Your task to perform on an android device: Open accessibility settings Image 0: 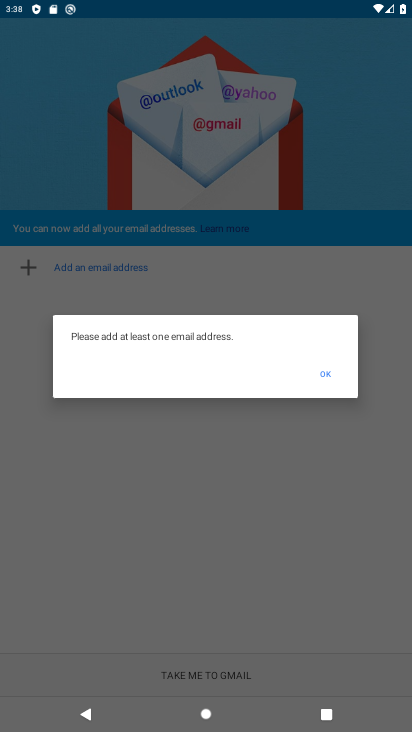
Step 0: press home button
Your task to perform on an android device: Open accessibility settings Image 1: 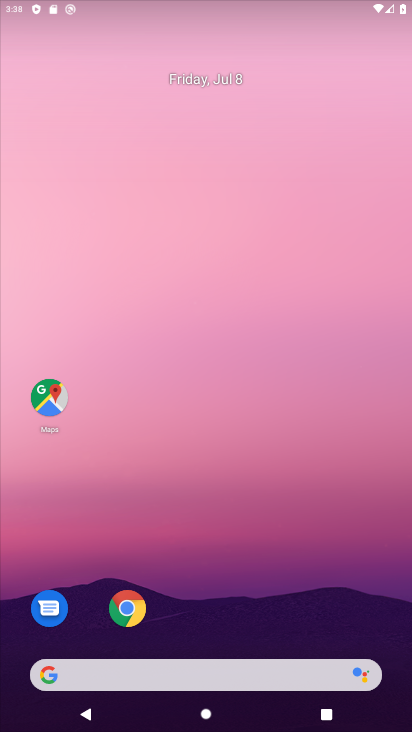
Step 1: drag from (307, 626) to (193, 718)
Your task to perform on an android device: Open accessibility settings Image 2: 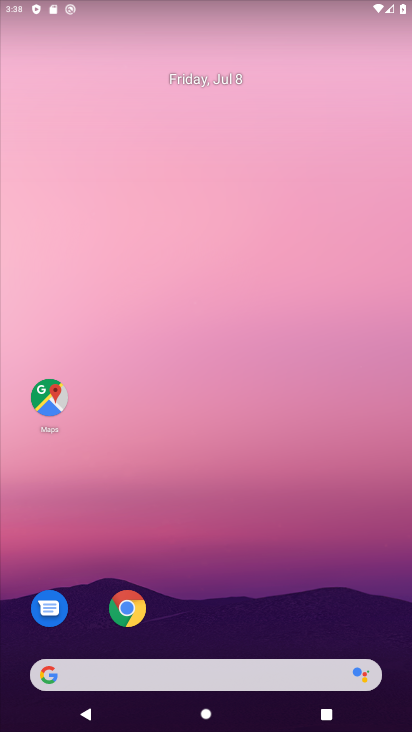
Step 2: drag from (273, 601) to (319, 163)
Your task to perform on an android device: Open accessibility settings Image 3: 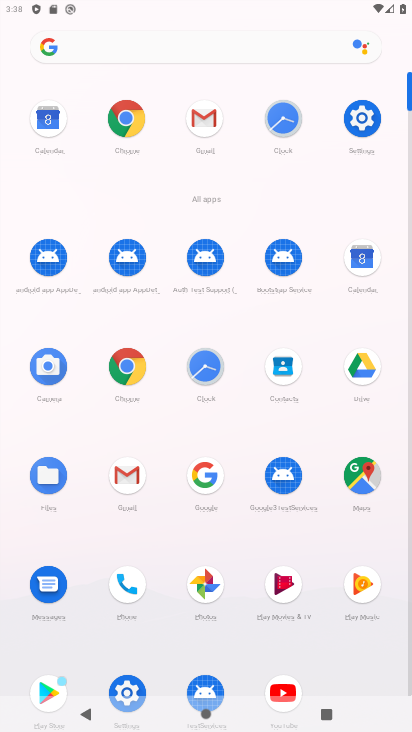
Step 3: click (376, 109)
Your task to perform on an android device: Open accessibility settings Image 4: 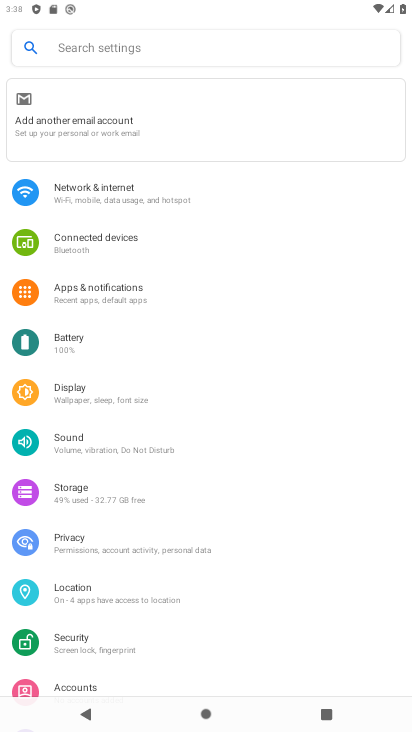
Step 4: drag from (107, 637) to (139, 368)
Your task to perform on an android device: Open accessibility settings Image 5: 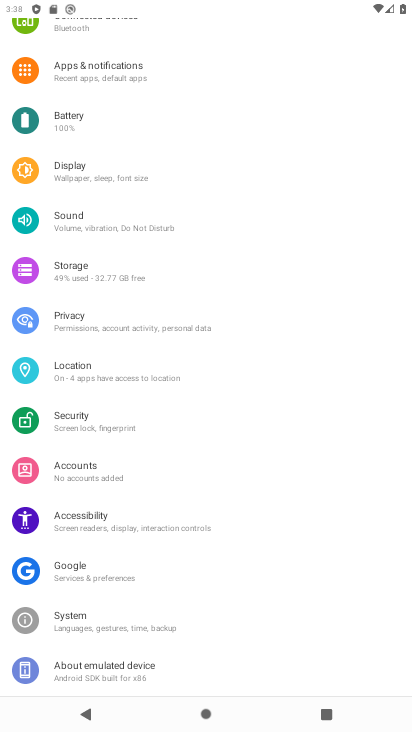
Step 5: click (119, 518)
Your task to perform on an android device: Open accessibility settings Image 6: 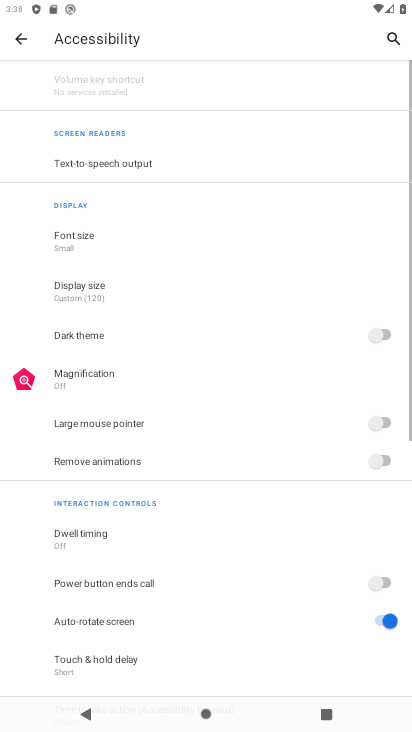
Step 6: task complete